Your task to perform on an android device: Show me popular videos on Youtube Image 0: 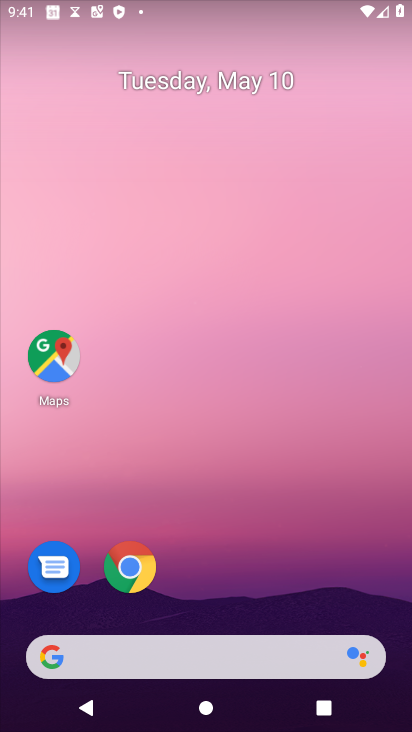
Step 0: press home button
Your task to perform on an android device: Show me popular videos on Youtube Image 1: 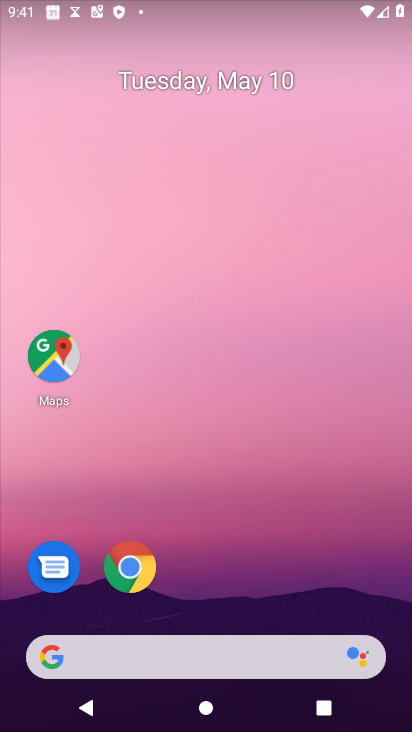
Step 1: drag from (3, 652) to (229, 136)
Your task to perform on an android device: Show me popular videos on Youtube Image 2: 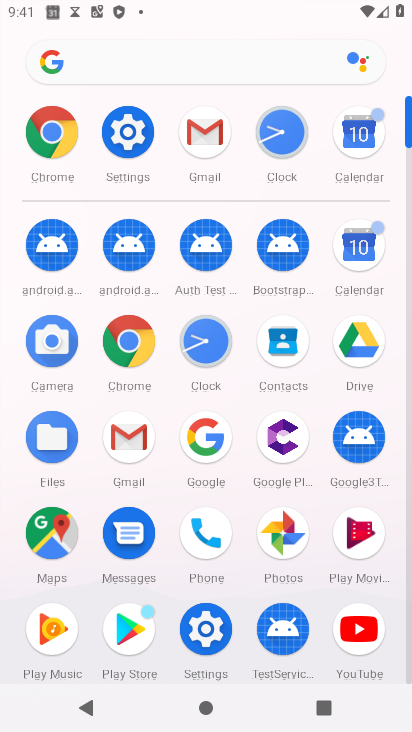
Step 2: click (357, 633)
Your task to perform on an android device: Show me popular videos on Youtube Image 3: 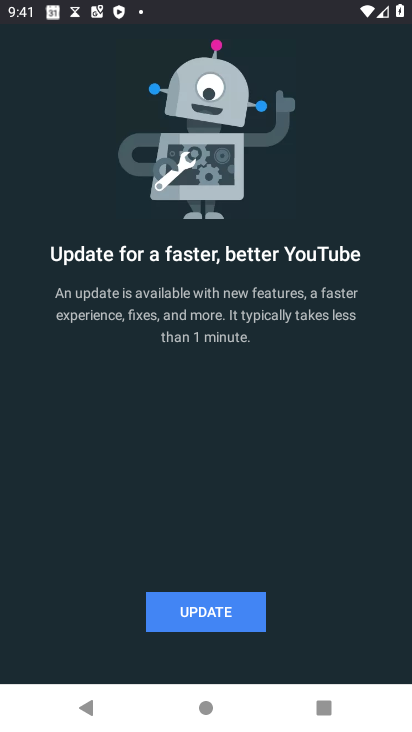
Step 3: click (192, 615)
Your task to perform on an android device: Show me popular videos on Youtube Image 4: 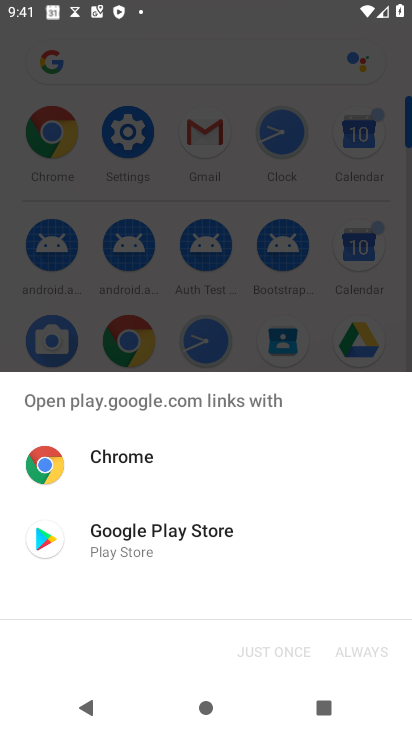
Step 4: click (111, 537)
Your task to perform on an android device: Show me popular videos on Youtube Image 5: 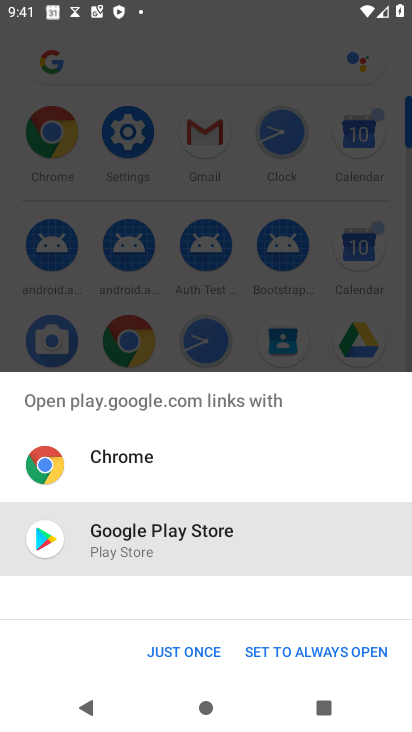
Step 5: click (166, 652)
Your task to perform on an android device: Show me popular videos on Youtube Image 6: 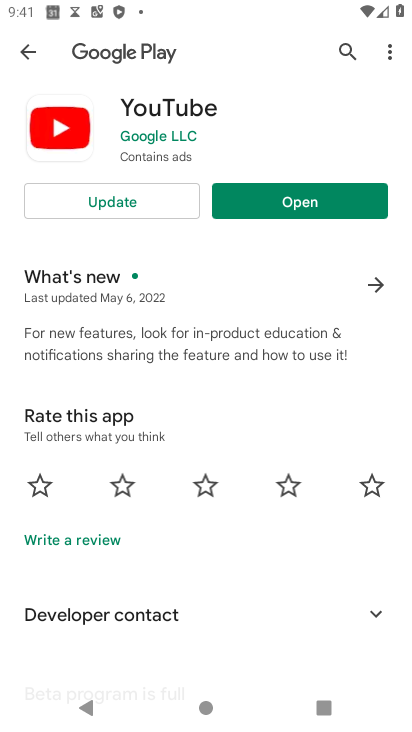
Step 6: click (300, 205)
Your task to perform on an android device: Show me popular videos on Youtube Image 7: 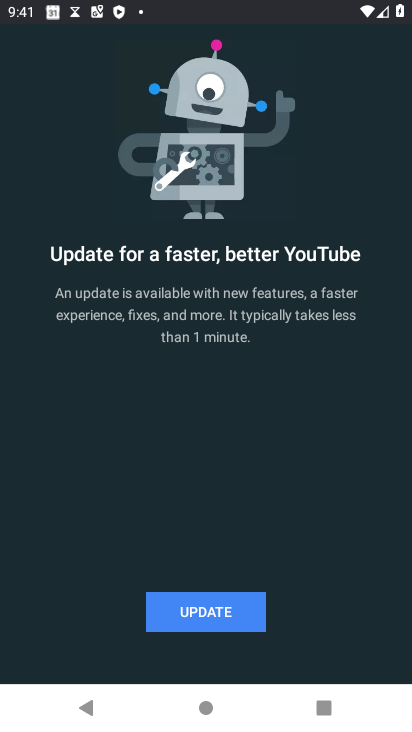
Step 7: task complete